Your task to perform on an android device: check the backup settings in the google photos Image 0: 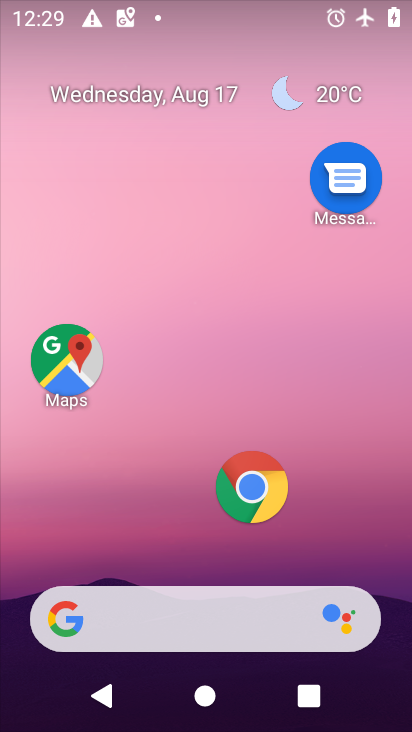
Step 0: drag from (160, 529) to (196, 0)
Your task to perform on an android device: check the backup settings in the google photos Image 1: 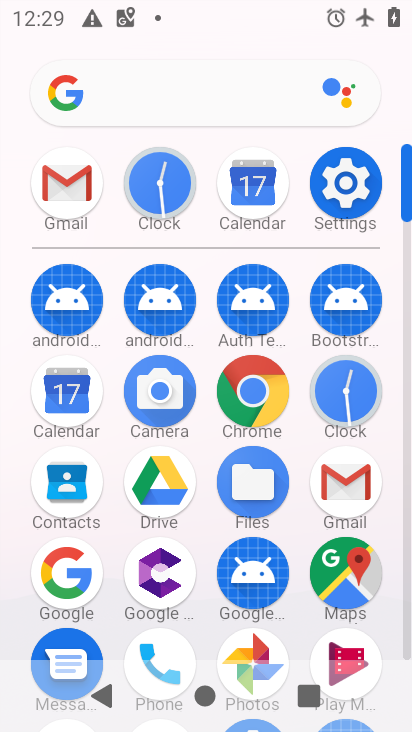
Step 1: click (262, 639)
Your task to perform on an android device: check the backup settings in the google photos Image 2: 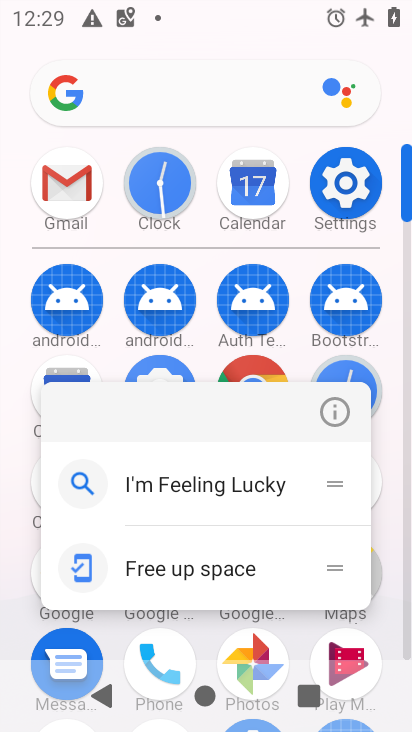
Step 2: click (244, 642)
Your task to perform on an android device: check the backup settings in the google photos Image 3: 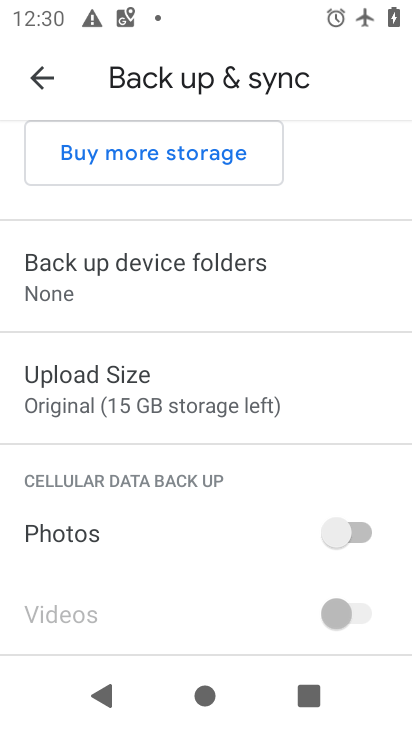
Step 3: task complete